Your task to perform on an android device: turn on wifi Image 0: 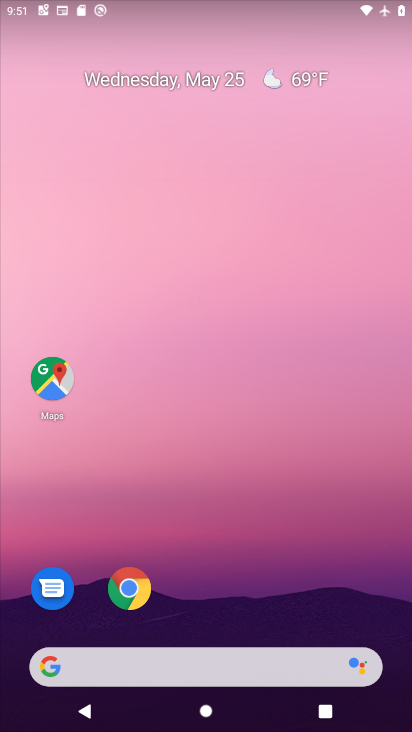
Step 0: drag from (374, 600) to (361, 110)
Your task to perform on an android device: turn on wifi Image 1: 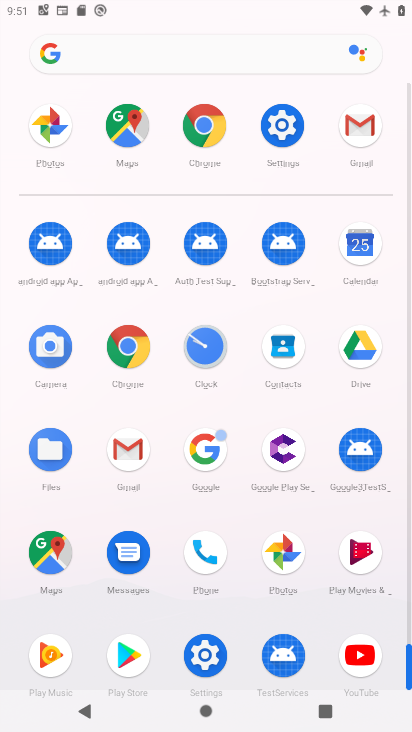
Step 1: click (296, 131)
Your task to perform on an android device: turn on wifi Image 2: 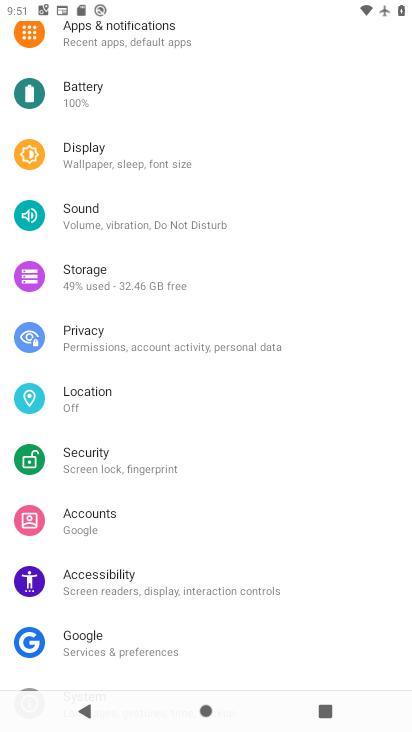
Step 2: drag from (322, 515) to (303, 368)
Your task to perform on an android device: turn on wifi Image 3: 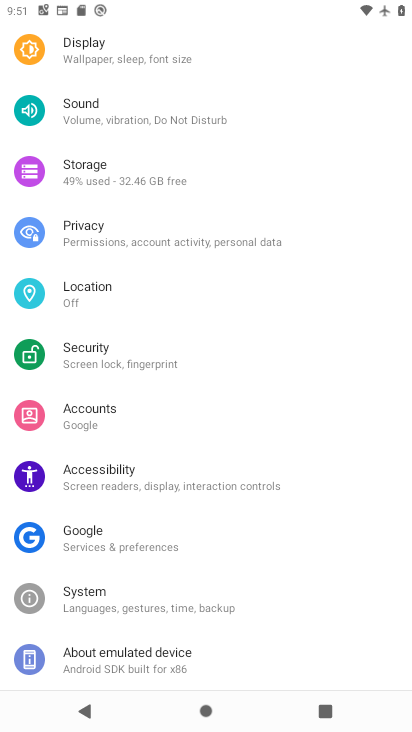
Step 3: drag from (335, 548) to (299, 387)
Your task to perform on an android device: turn on wifi Image 4: 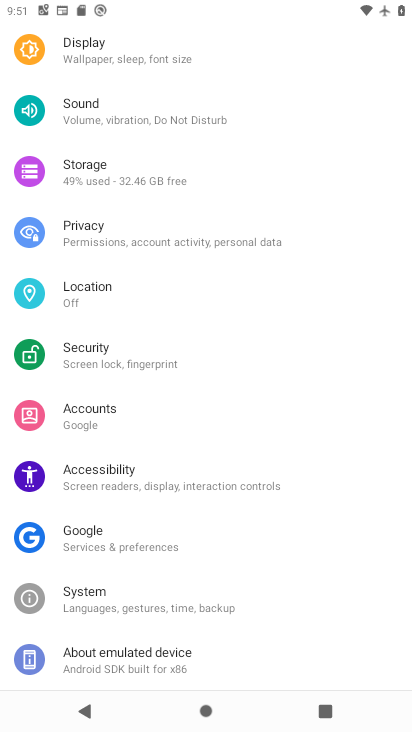
Step 4: drag from (306, 314) to (306, 392)
Your task to perform on an android device: turn on wifi Image 5: 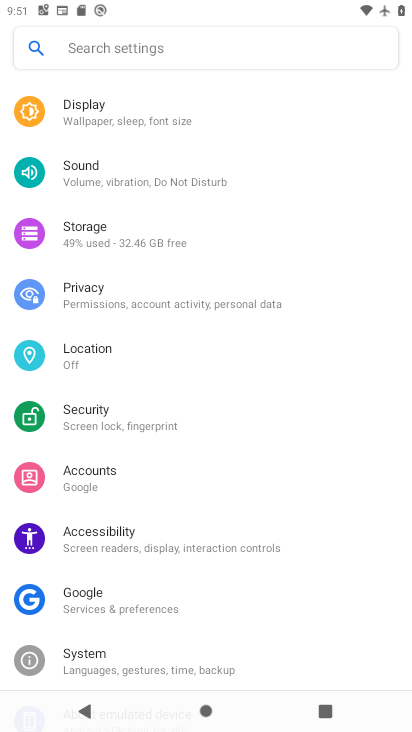
Step 5: drag from (310, 331) to (327, 405)
Your task to perform on an android device: turn on wifi Image 6: 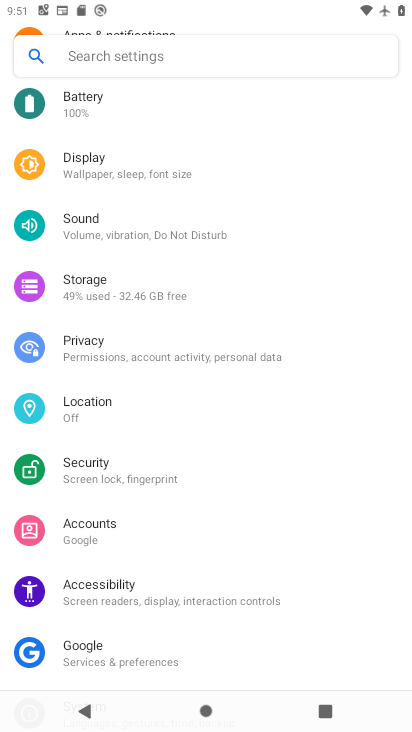
Step 6: drag from (315, 335) to (321, 420)
Your task to perform on an android device: turn on wifi Image 7: 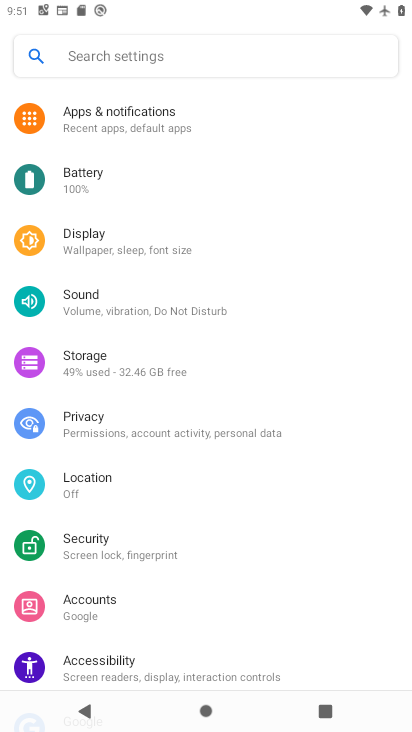
Step 7: drag from (310, 332) to (309, 416)
Your task to perform on an android device: turn on wifi Image 8: 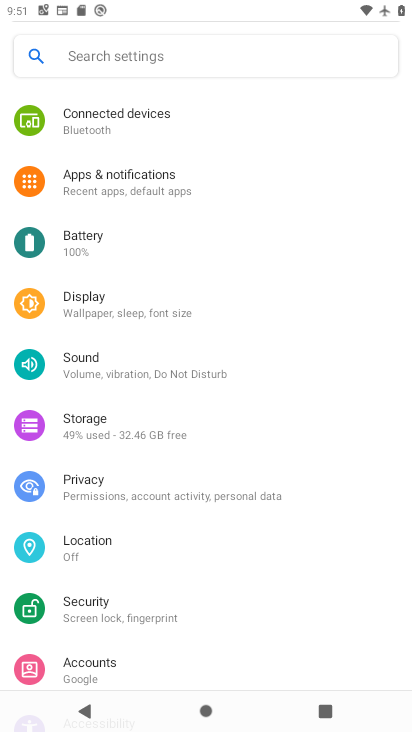
Step 8: drag from (316, 320) to (323, 399)
Your task to perform on an android device: turn on wifi Image 9: 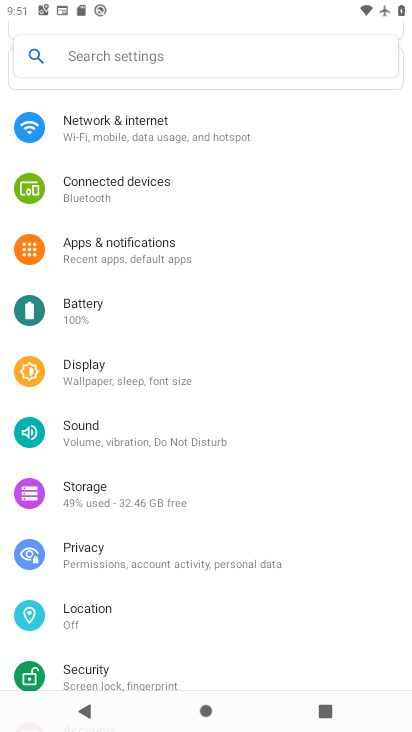
Step 9: drag from (319, 309) to (326, 393)
Your task to perform on an android device: turn on wifi Image 10: 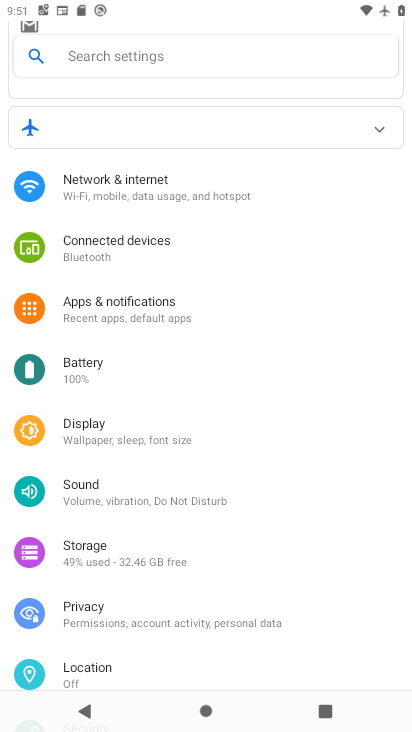
Step 10: drag from (314, 290) to (302, 399)
Your task to perform on an android device: turn on wifi Image 11: 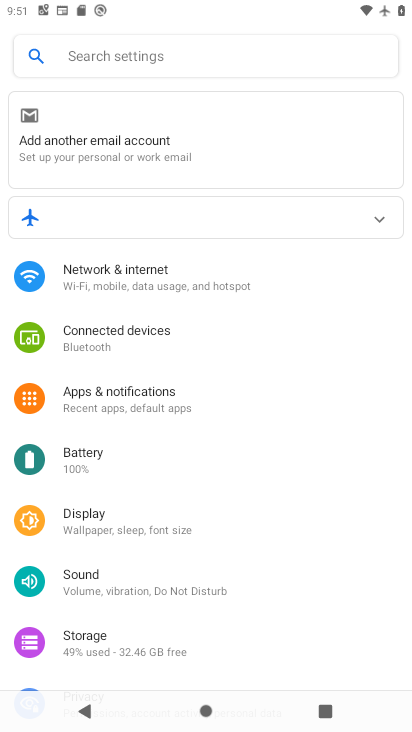
Step 11: drag from (296, 284) to (283, 392)
Your task to perform on an android device: turn on wifi Image 12: 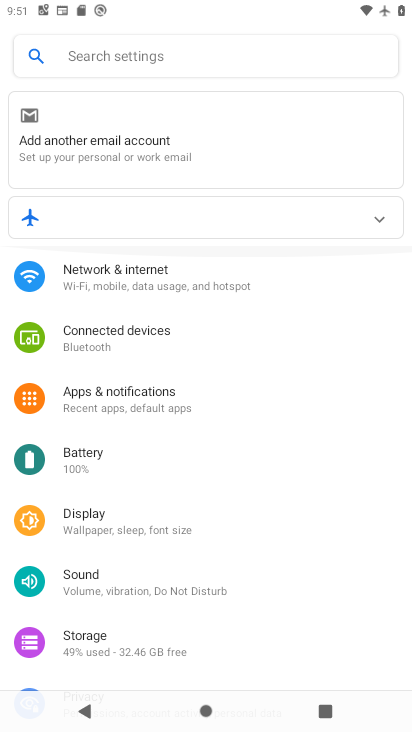
Step 12: click (238, 283)
Your task to perform on an android device: turn on wifi Image 13: 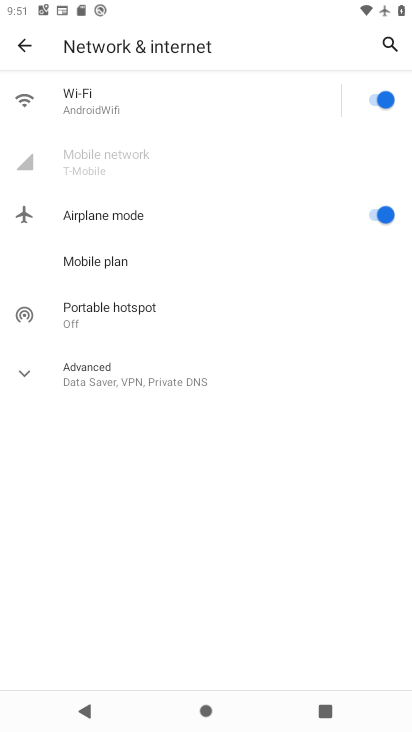
Step 13: task complete